Your task to perform on an android device: open app "Pinterest" (install if not already installed) and go to login screen Image 0: 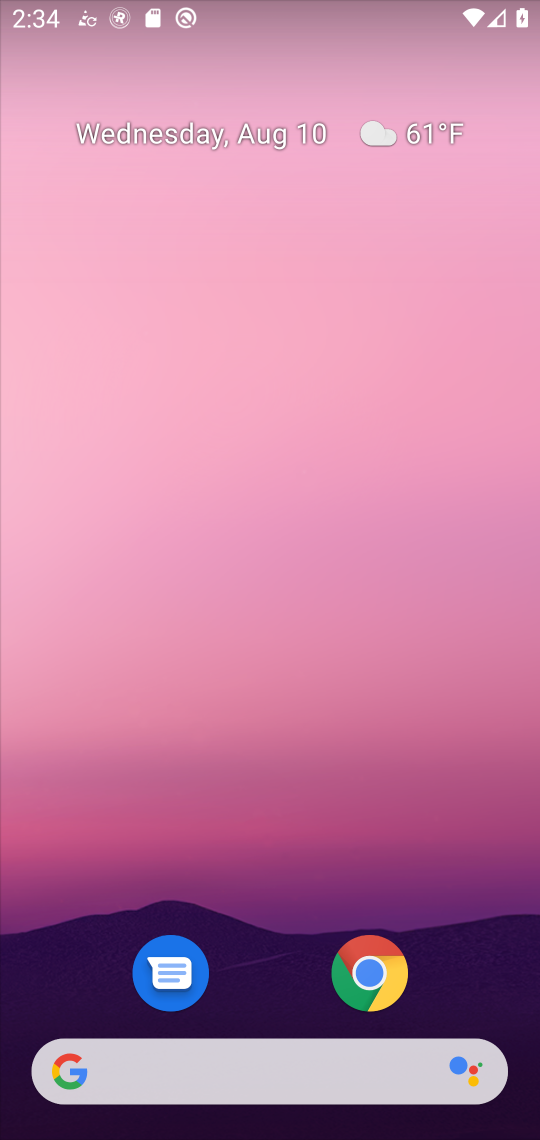
Step 0: drag from (289, 965) to (305, 225)
Your task to perform on an android device: open app "Pinterest" (install if not already installed) and go to login screen Image 1: 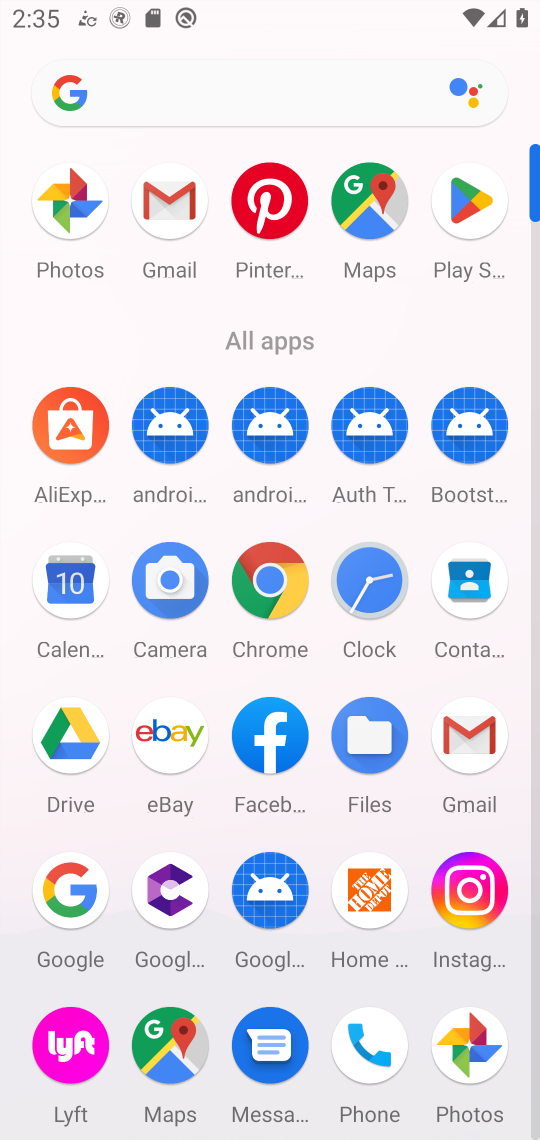
Step 1: click (450, 211)
Your task to perform on an android device: open app "Pinterest" (install if not already installed) and go to login screen Image 2: 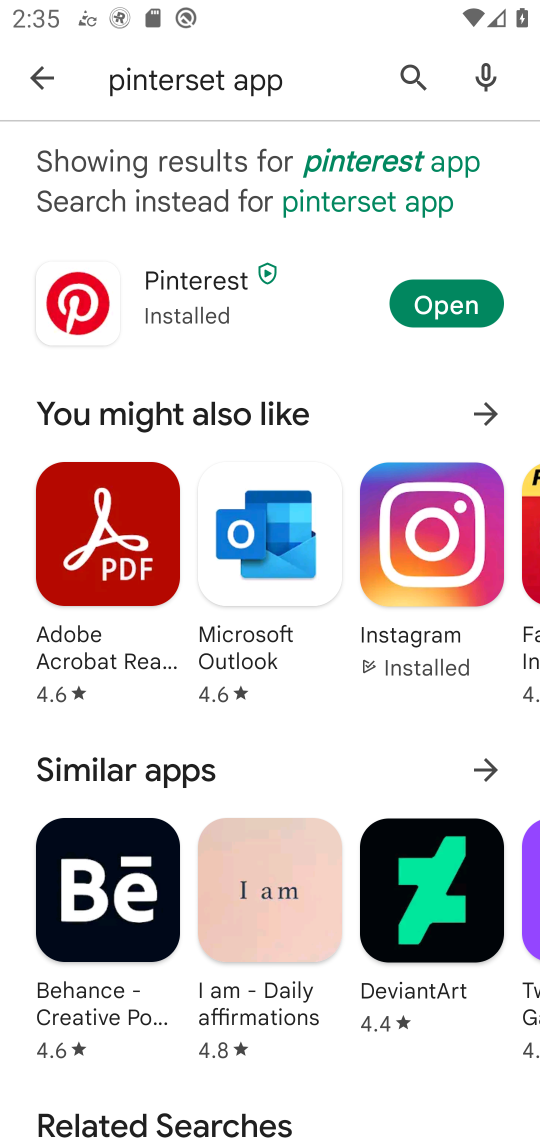
Step 2: click (415, 312)
Your task to perform on an android device: open app "Pinterest" (install if not already installed) and go to login screen Image 3: 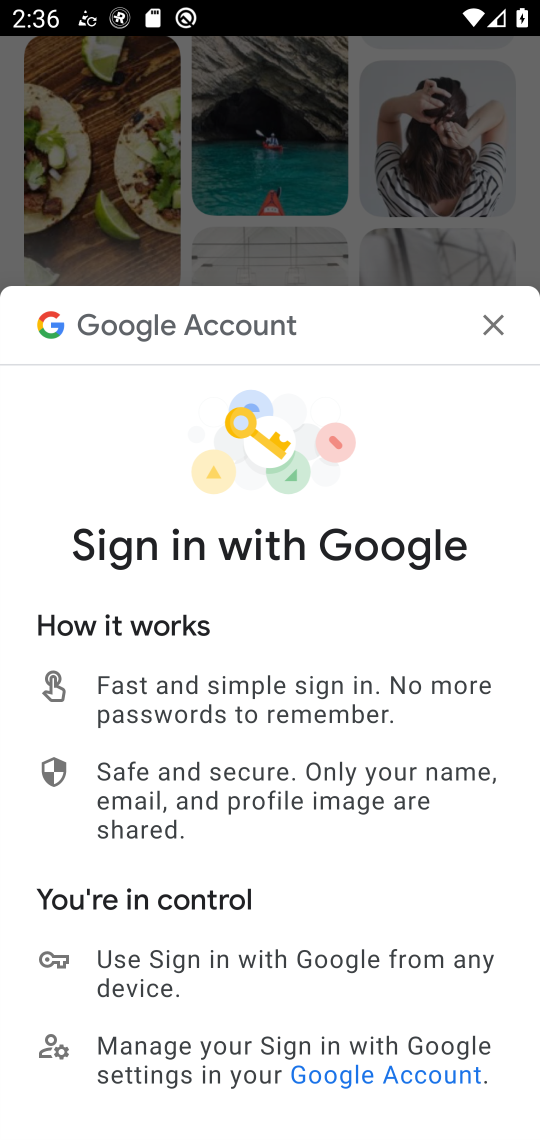
Step 3: drag from (381, 893) to (438, 276)
Your task to perform on an android device: open app "Pinterest" (install if not already installed) and go to login screen Image 4: 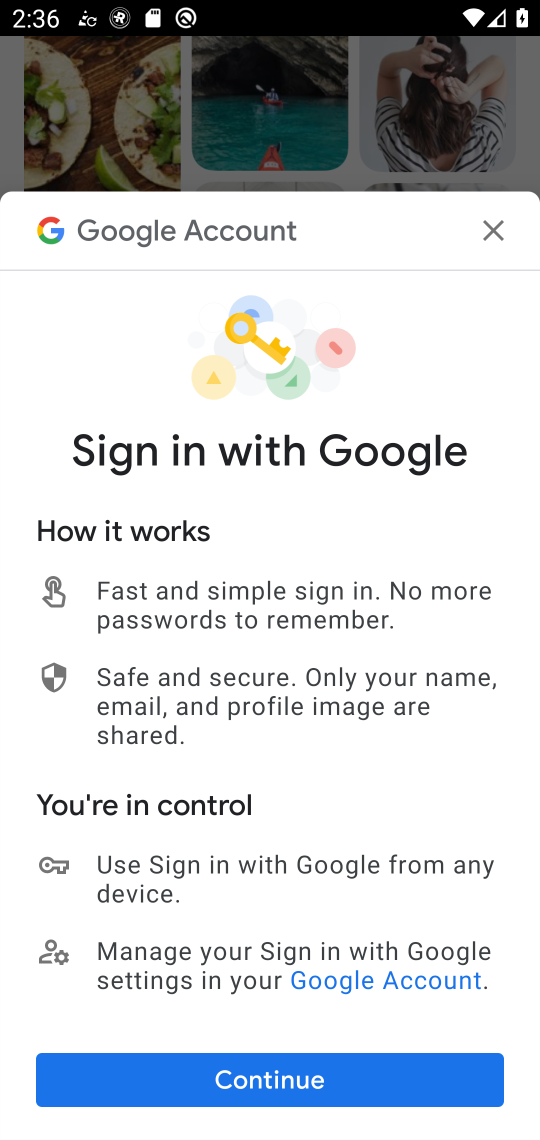
Step 4: click (320, 1052)
Your task to perform on an android device: open app "Pinterest" (install if not already installed) and go to login screen Image 5: 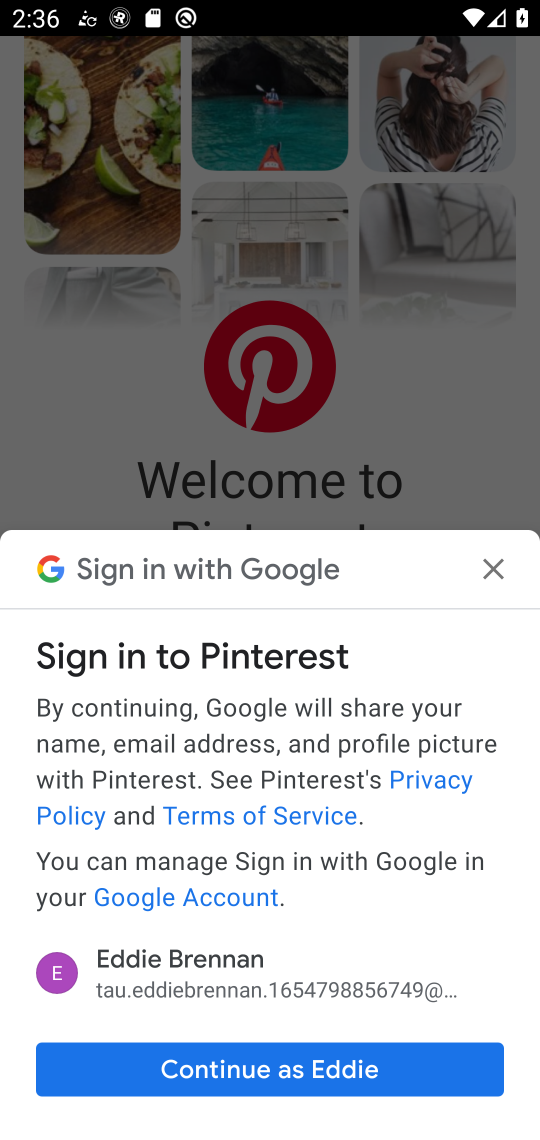
Step 5: click (494, 535)
Your task to perform on an android device: open app "Pinterest" (install if not already installed) and go to login screen Image 6: 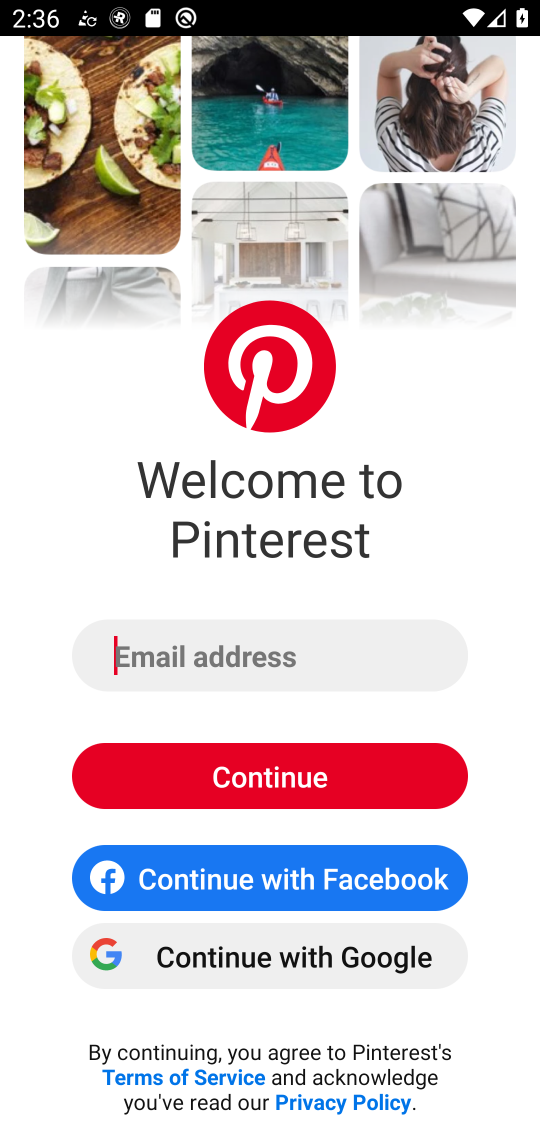
Step 6: click (338, 781)
Your task to perform on an android device: open app "Pinterest" (install if not already installed) and go to login screen Image 7: 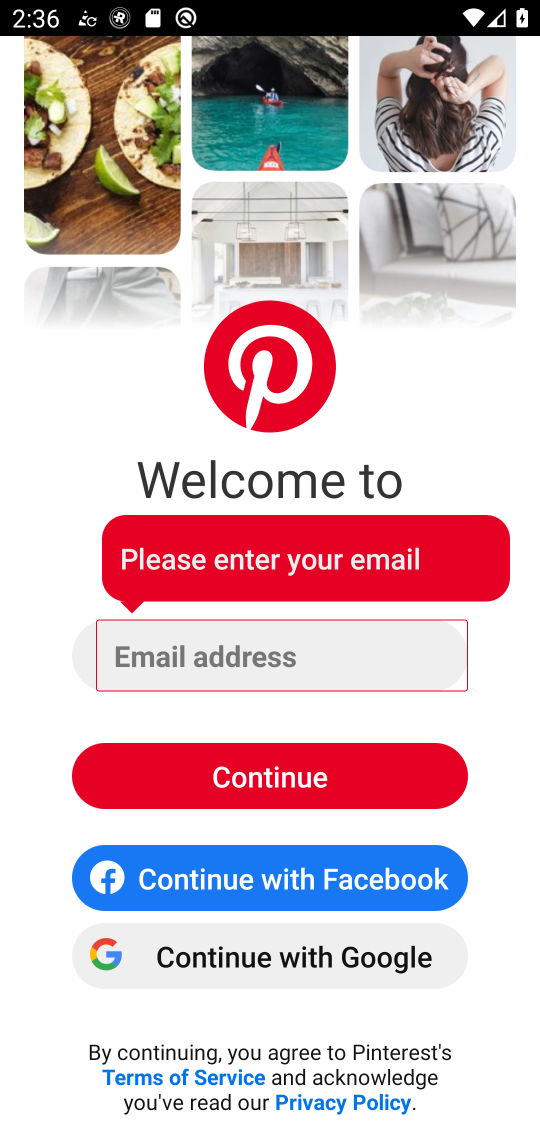
Step 7: task complete